Your task to perform on an android device: toggle improve location accuracy Image 0: 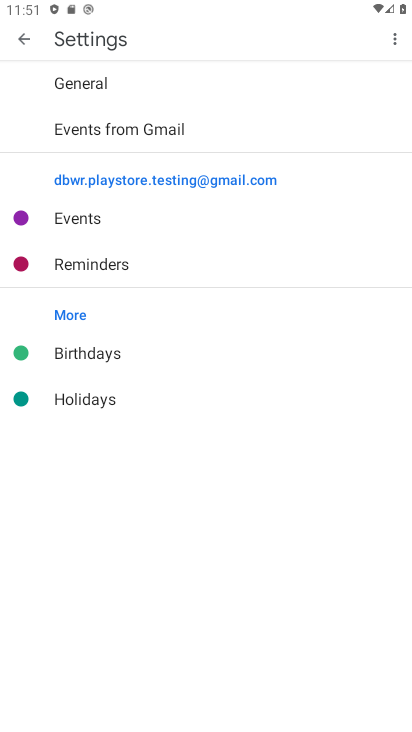
Step 0: press home button
Your task to perform on an android device: toggle improve location accuracy Image 1: 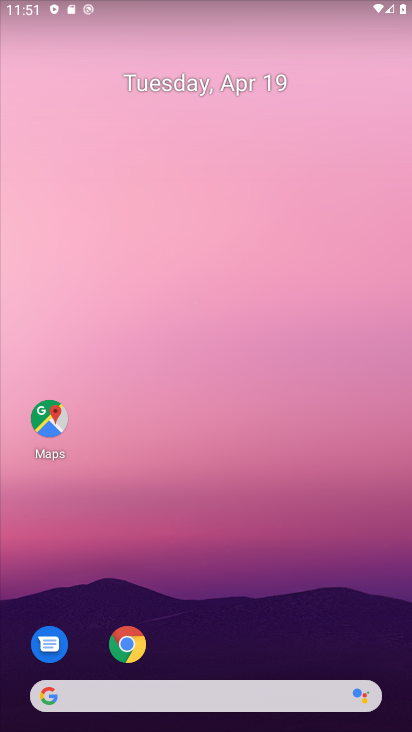
Step 1: drag from (239, 600) to (271, 1)
Your task to perform on an android device: toggle improve location accuracy Image 2: 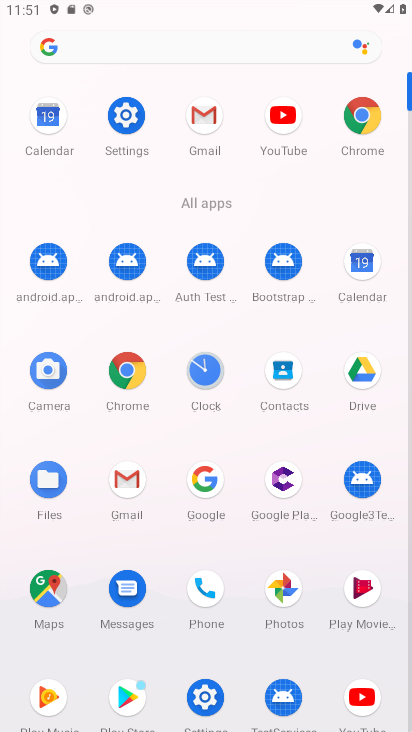
Step 2: click (123, 110)
Your task to perform on an android device: toggle improve location accuracy Image 3: 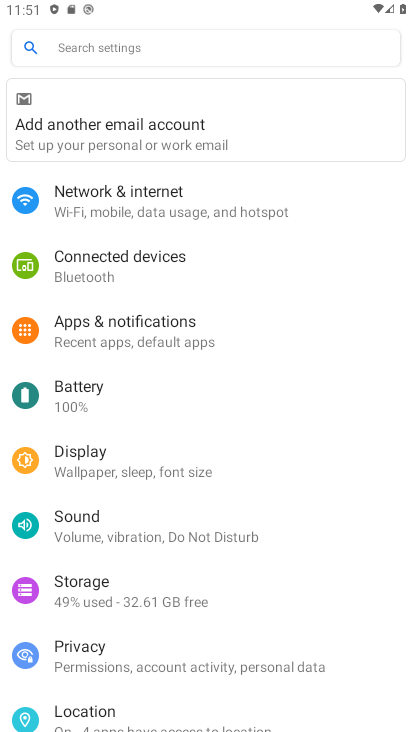
Step 3: drag from (264, 596) to (285, 238)
Your task to perform on an android device: toggle improve location accuracy Image 4: 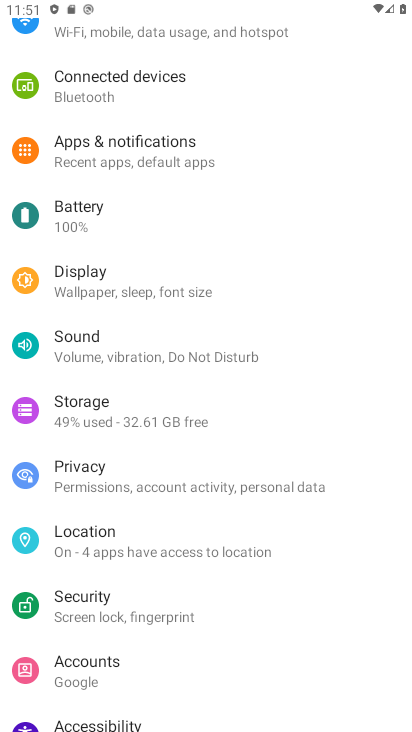
Step 4: click (130, 540)
Your task to perform on an android device: toggle improve location accuracy Image 5: 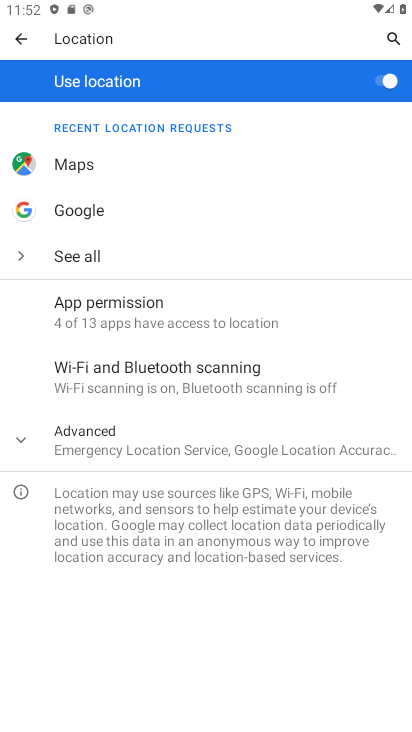
Step 5: click (19, 439)
Your task to perform on an android device: toggle improve location accuracy Image 6: 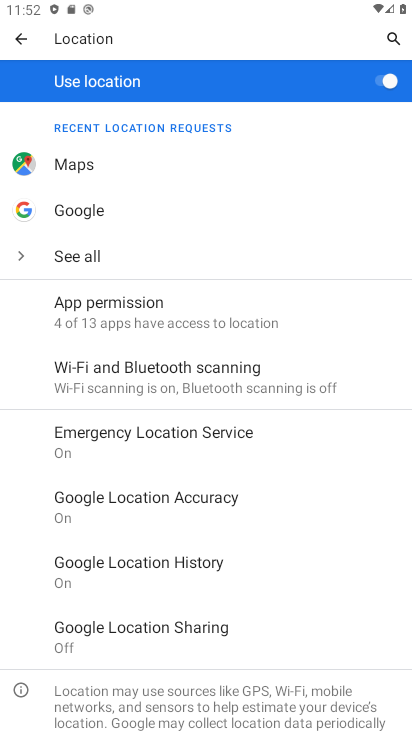
Step 6: click (122, 493)
Your task to perform on an android device: toggle improve location accuracy Image 7: 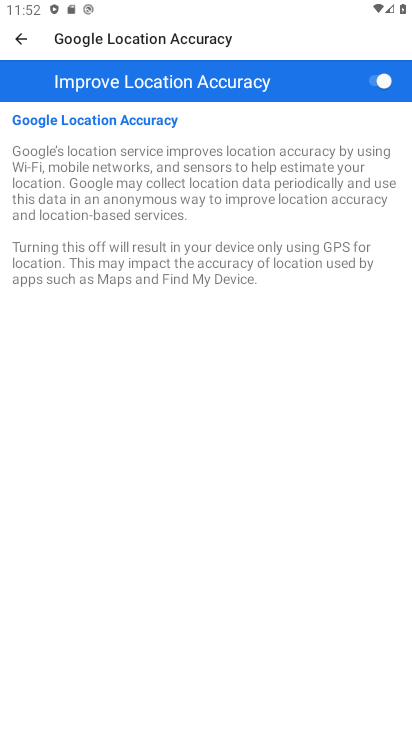
Step 7: click (377, 78)
Your task to perform on an android device: toggle improve location accuracy Image 8: 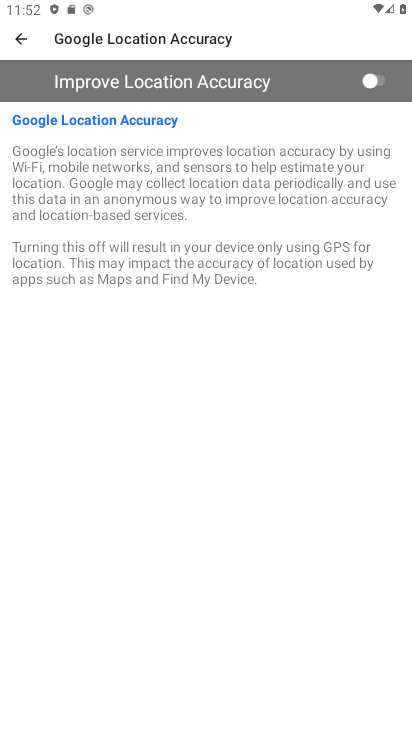
Step 8: task complete